Your task to perform on an android device: toggle notification dots Image 0: 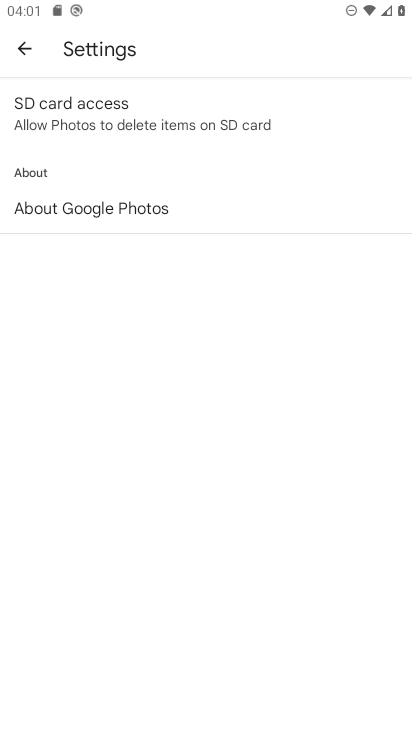
Step 0: press home button
Your task to perform on an android device: toggle notification dots Image 1: 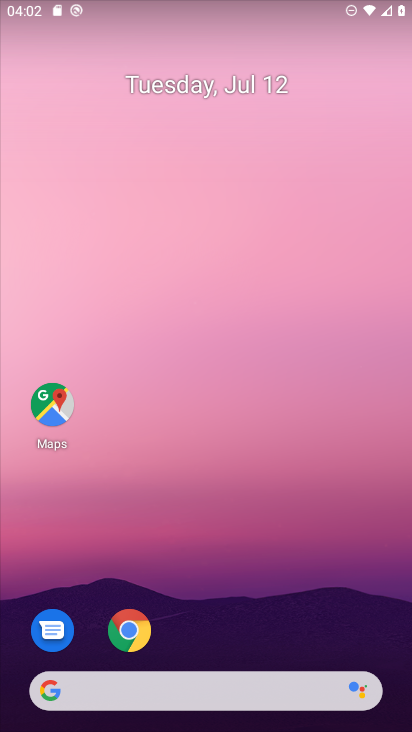
Step 1: drag from (386, 661) to (328, 112)
Your task to perform on an android device: toggle notification dots Image 2: 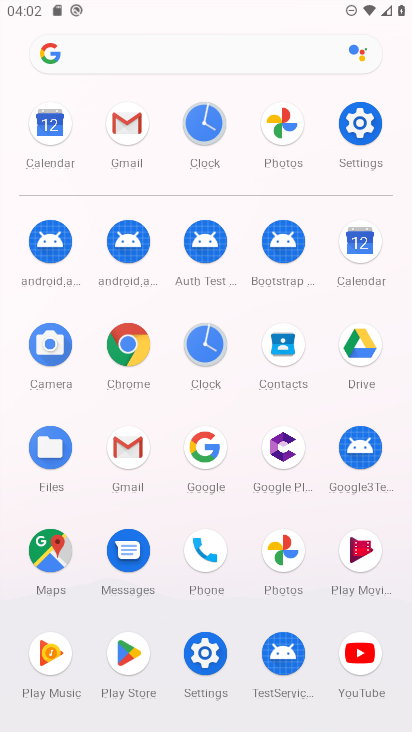
Step 2: click (204, 654)
Your task to perform on an android device: toggle notification dots Image 3: 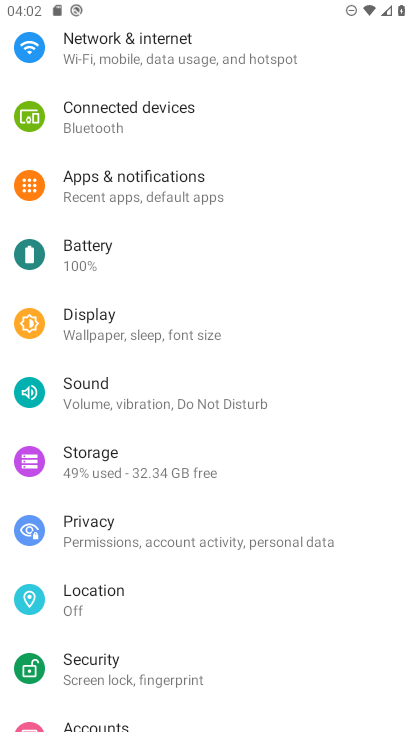
Step 3: click (127, 175)
Your task to perform on an android device: toggle notification dots Image 4: 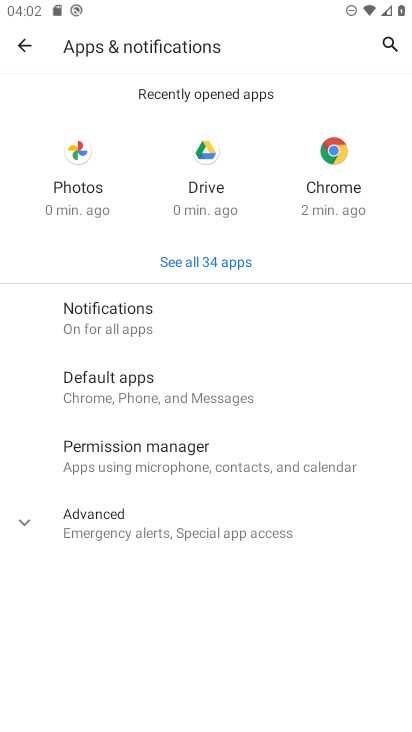
Step 4: click (122, 323)
Your task to perform on an android device: toggle notification dots Image 5: 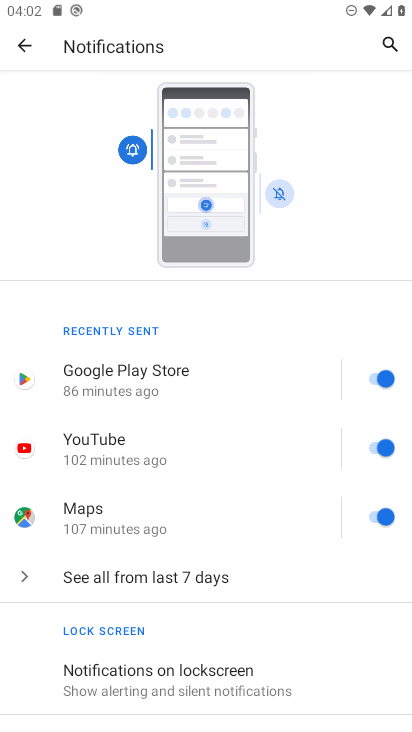
Step 5: drag from (222, 650) to (243, 305)
Your task to perform on an android device: toggle notification dots Image 6: 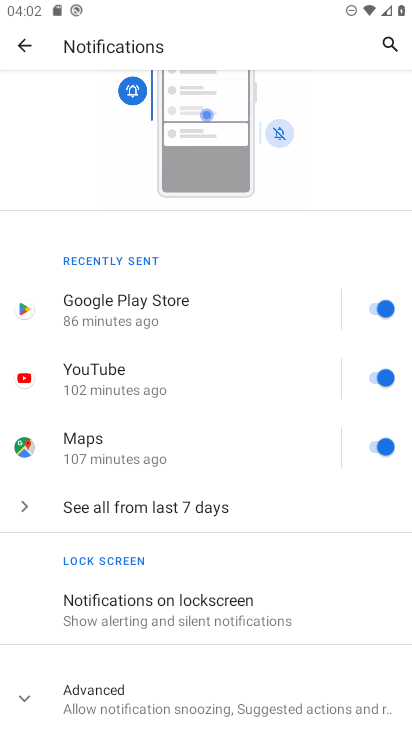
Step 6: click (23, 700)
Your task to perform on an android device: toggle notification dots Image 7: 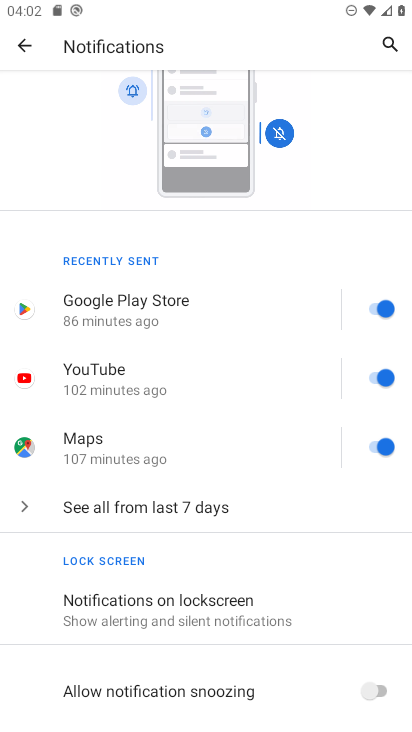
Step 7: drag from (213, 692) to (265, 310)
Your task to perform on an android device: toggle notification dots Image 8: 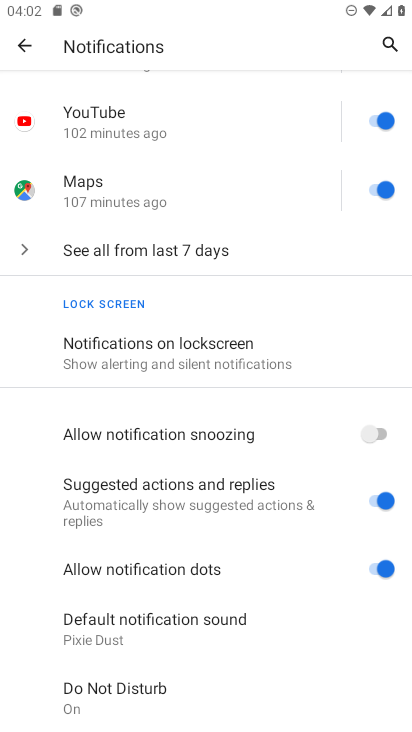
Step 8: click (373, 568)
Your task to perform on an android device: toggle notification dots Image 9: 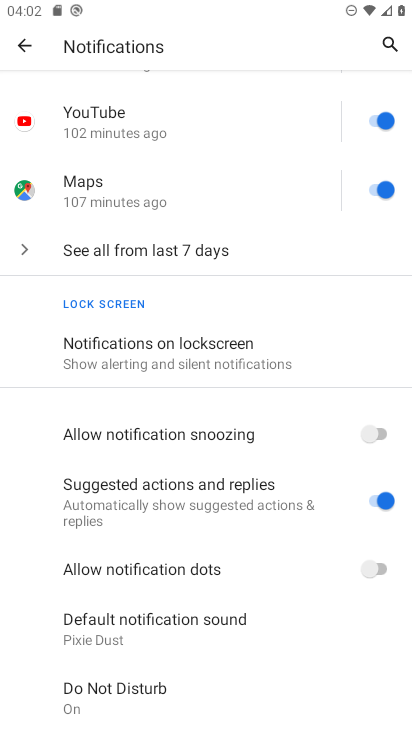
Step 9: task complete